Your task to perform on an android device: Open Yahoo.com Image 0: 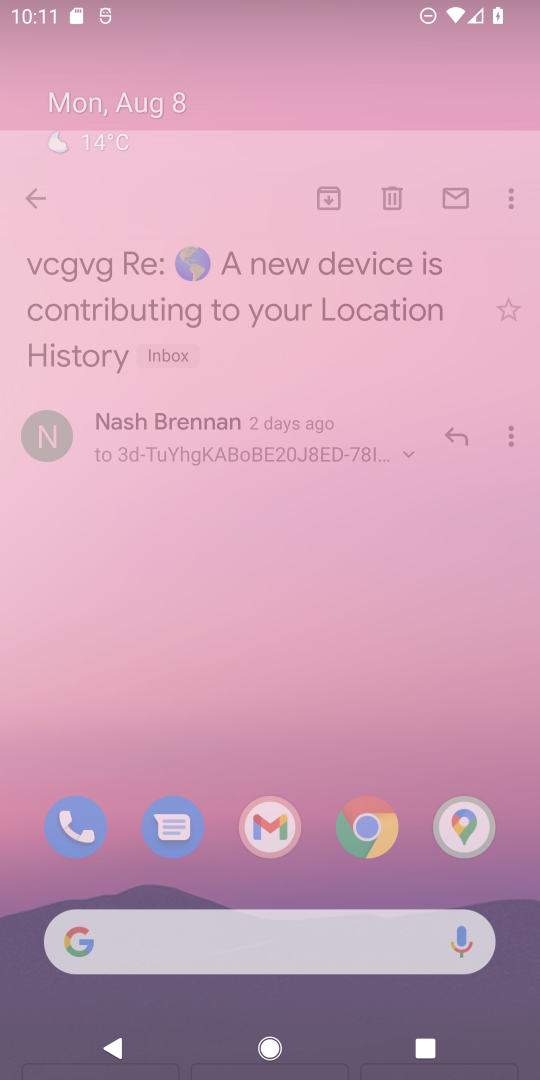
Step 0: press home button
Your task to perform on an android device: Open Yahoo.com Image 1: 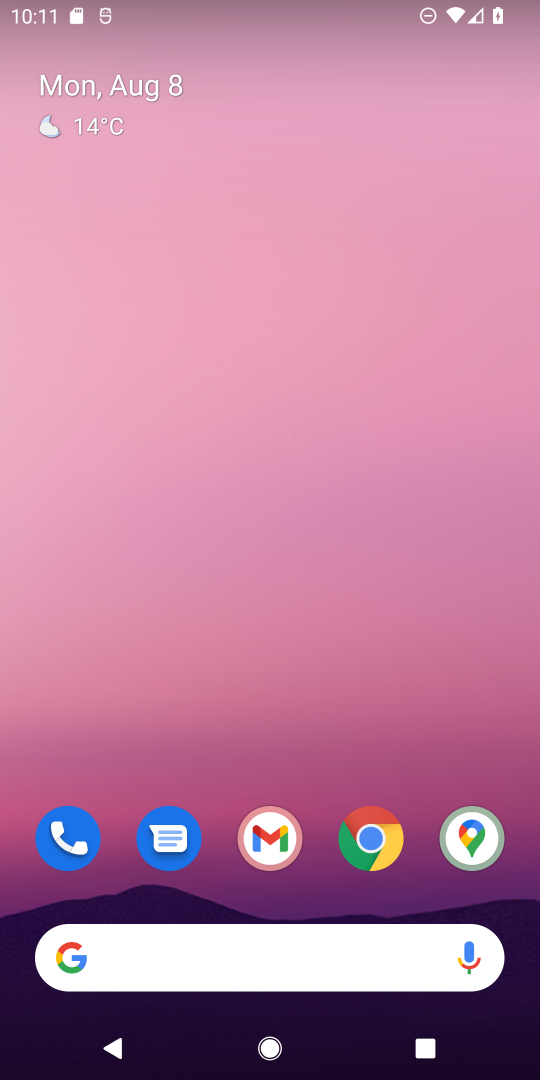
Step 1: click (57, 955)
Your task to perform on an android device: Open Yahoo.com Image 2: 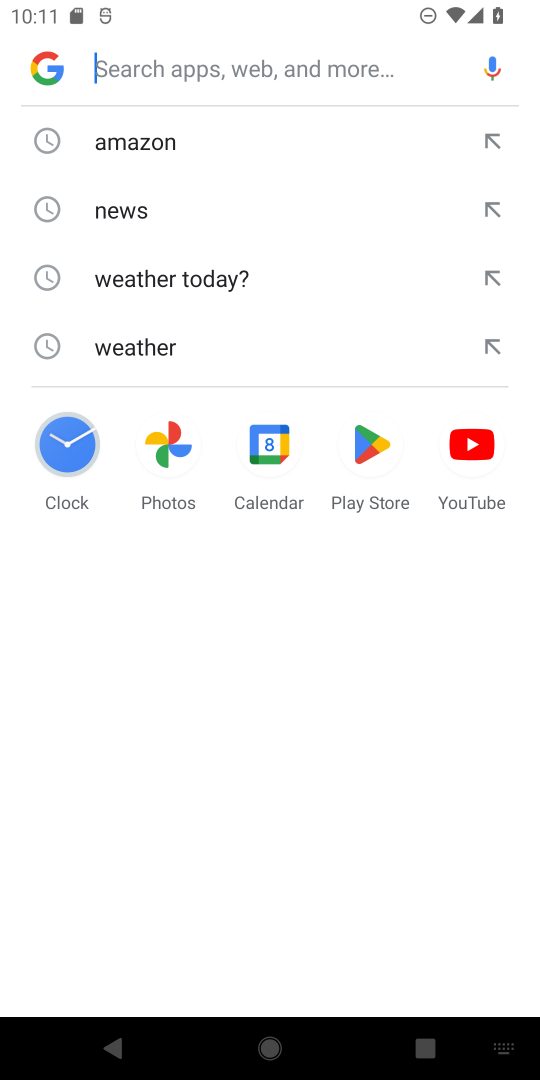
Step 2: type "Yahoo.com"
Your task to perform on an android device: Open Yahoo.com Image 3: 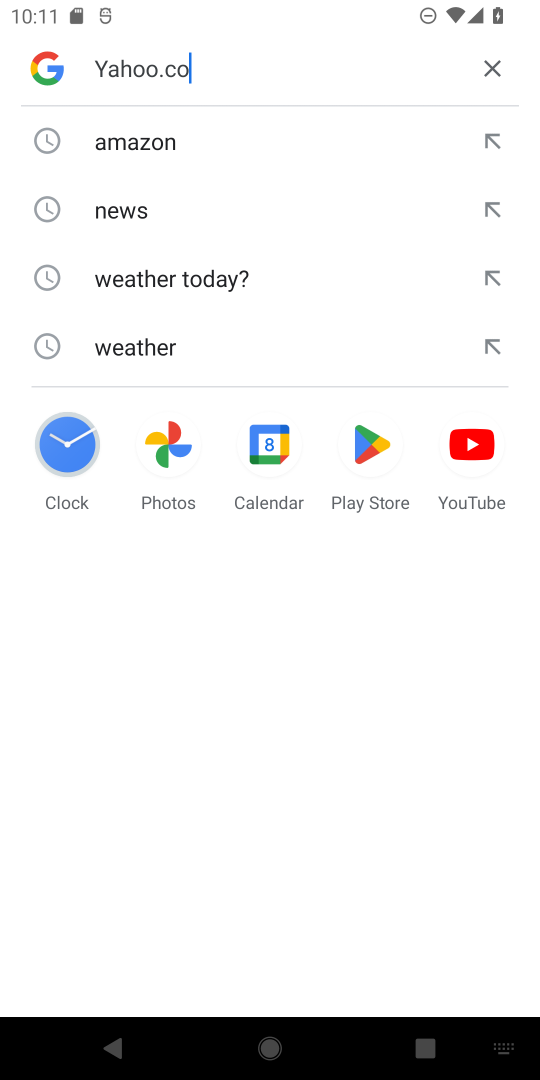
Step 3: press enter
Your task to perform on an android device: Open Yahoo.com Image 4: 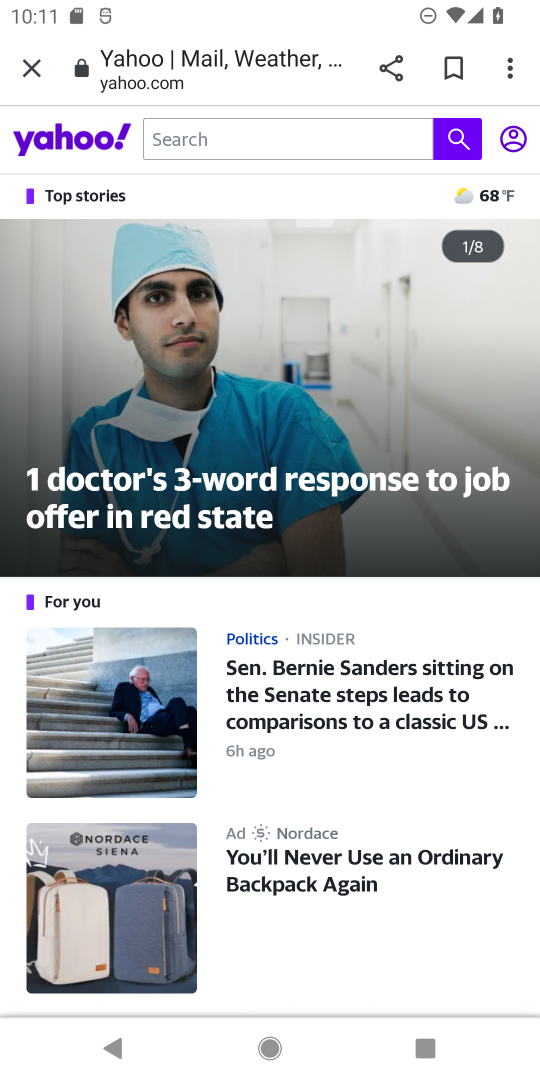
Step 4: task complete